Your task to perform on an android device: delete location history Image 0: 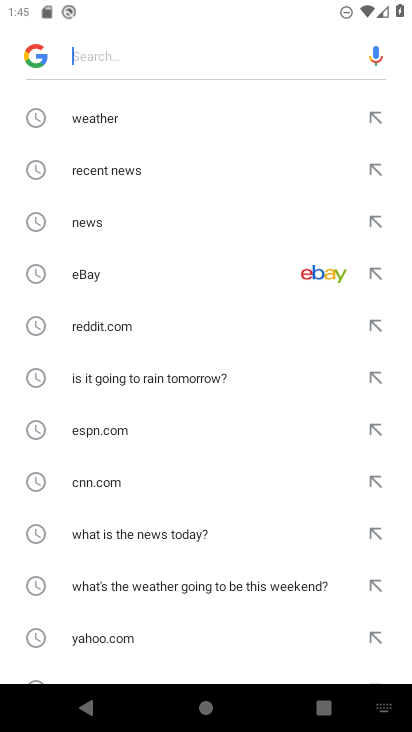
Step 0: press home button
Your task to perform on an android device: delete location history Image 1: 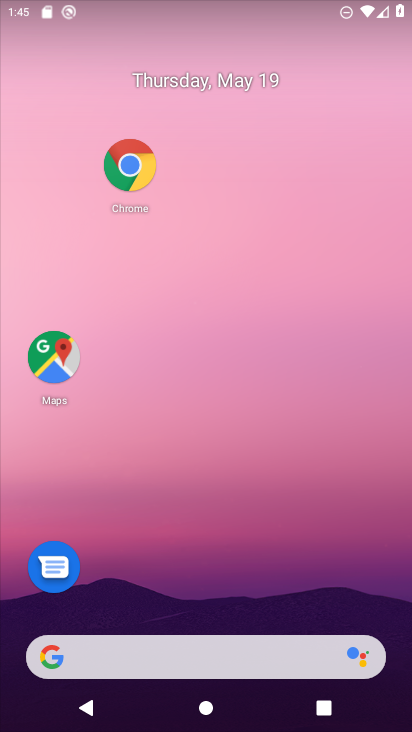
Step 1: drag from (302, 414) to (404, 72)
Your task to perform on an android device: delete location history Image 2: 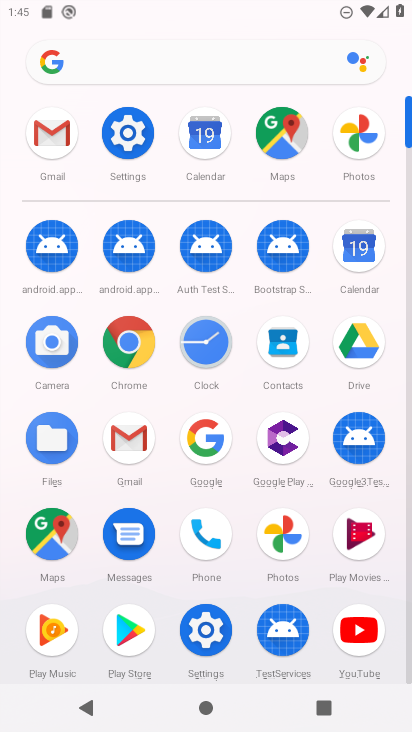
Step 2: click (127, 124)
Your task to perform on an android device: delete location history Image 3: 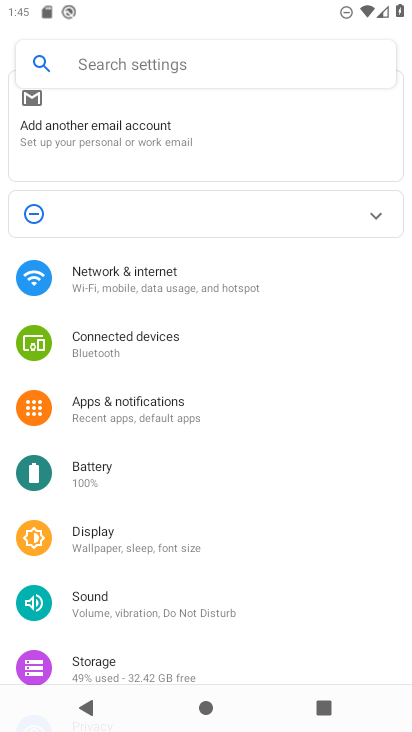
Step 3: drag from (167, 499) to (219, 284)
Your task to perform on an android device: delete location history Image 4: 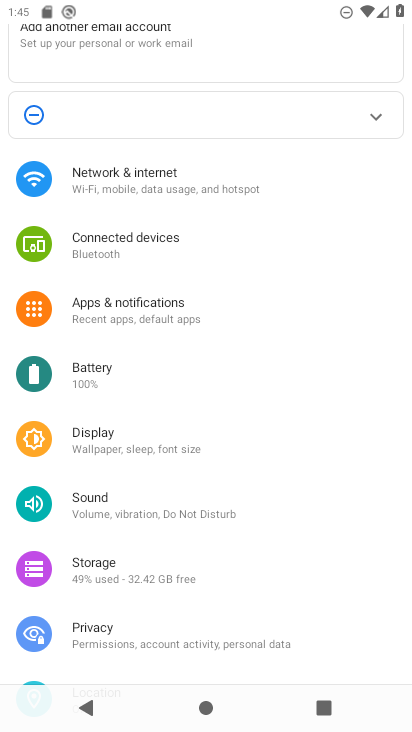
Step 4: drag from (163, 534) to (197, 284)
Your task to perform on an android device: delete location history Image 5: 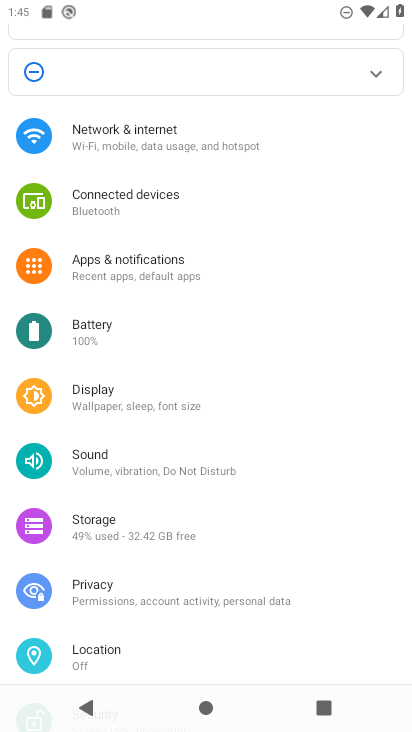
Step 5: click (158, 653)
Your task to perform on an android device: delete location history Image 6: 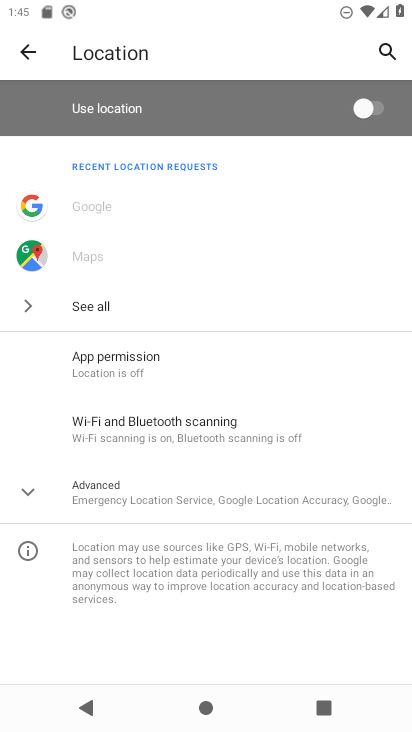
Step 6: click (190, 476)
Your task to perform on an android device: delete location history Image 7: 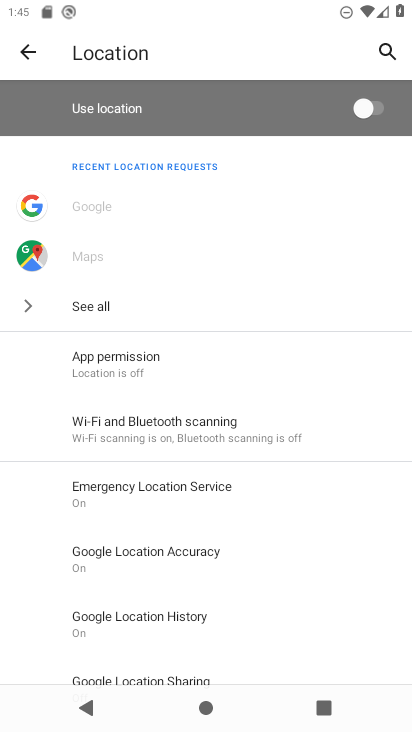
Step 7: drag from (293, 451) to (332, 180)
Your task to perform on an android device: delete location history Image 8: 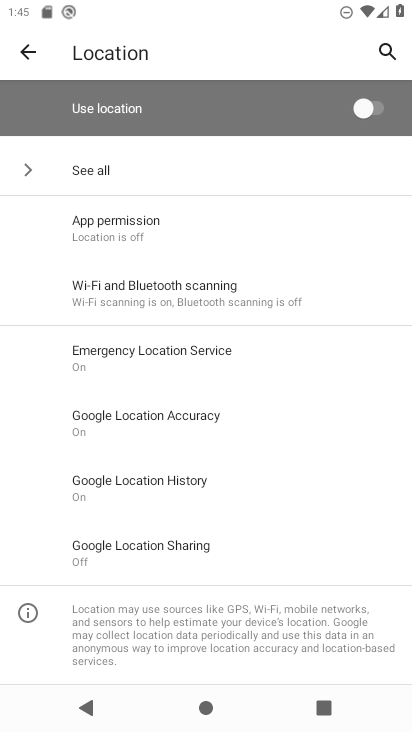
Step 8: click (223, 474)
Your task to perform on an android device: delete location history Image 9: 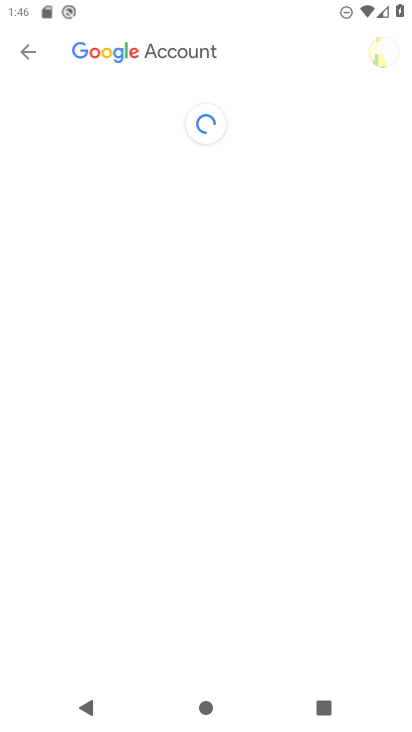
Step 9: task complete